Your task to perform on an android device: Go to ESPN.com Image 0: 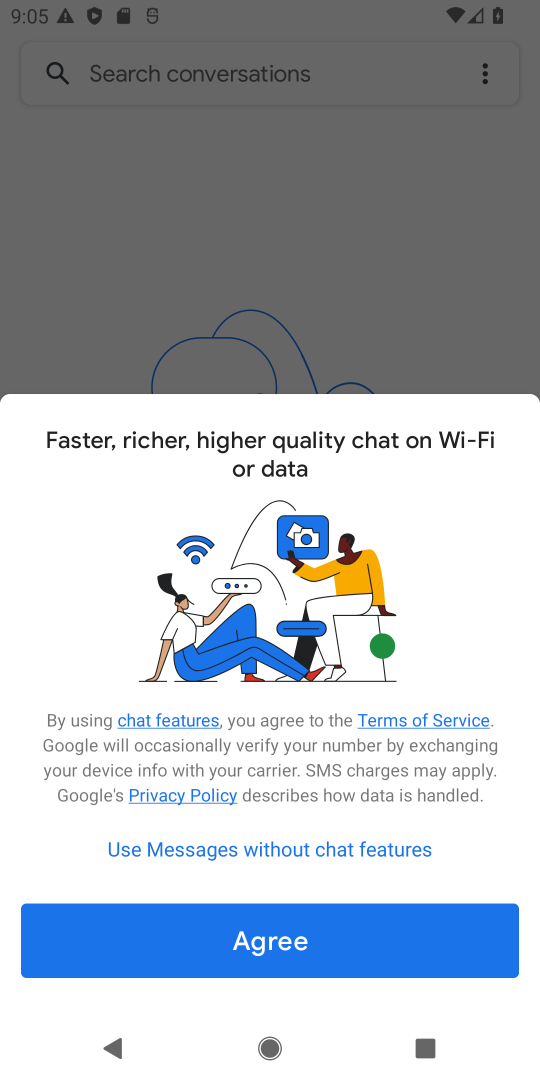
Step 0: press home button
Your task to perform on an android device: Go to ESPN.com Image 1: 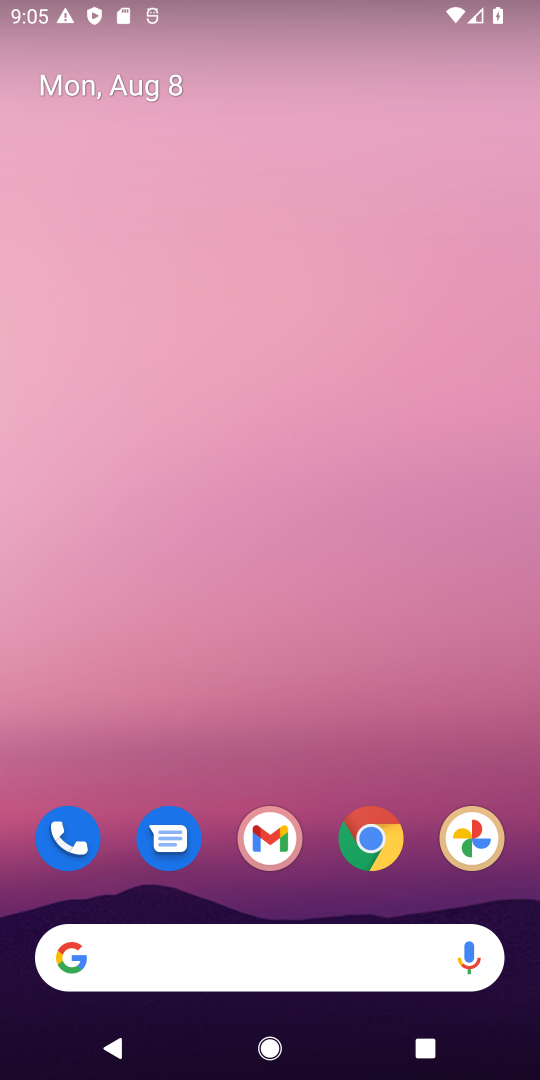
Step 1: press home button
Your task to perform on an android device: Go to ESPN.com Image 2: 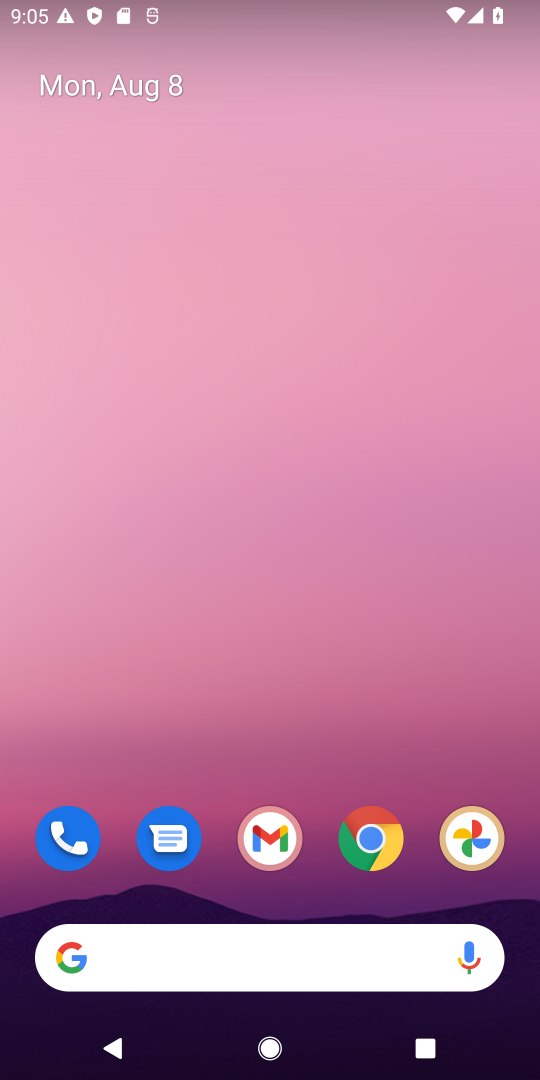
Step 2: click (77, 971)
Your task to perform on an android device: Go to ESPN.com Image 3: 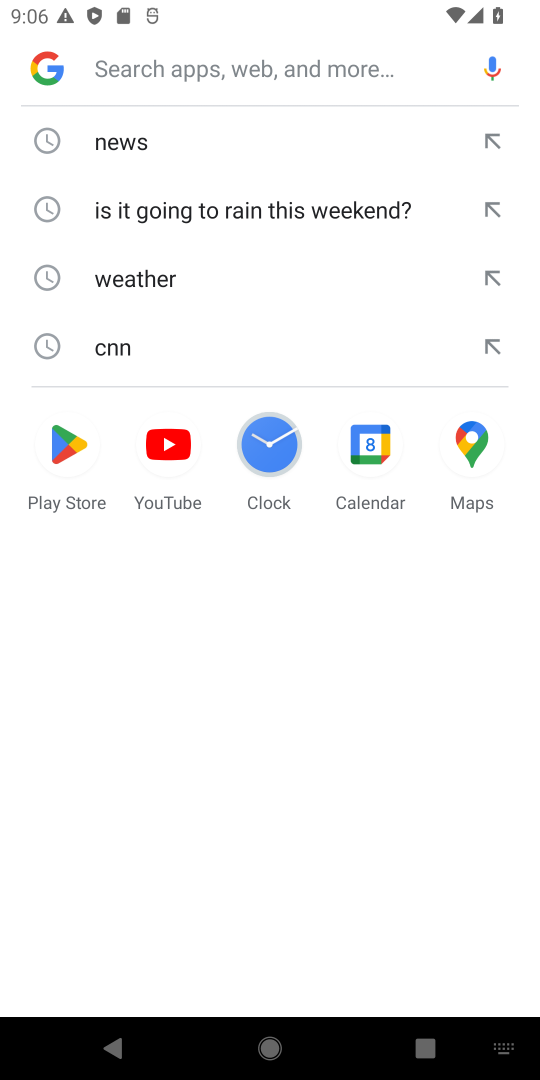
Step 3: type "ESPN.com"
Your task to perform on an android device: Go to ESPN.com Image 4: 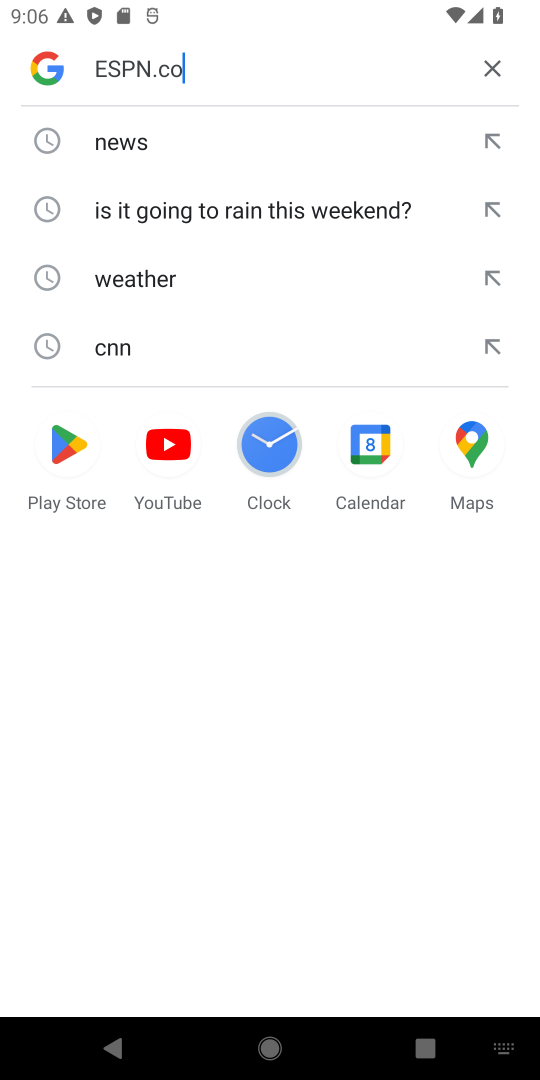
Step 4: press enter
Your task to perform on an android device: Go to ESPN.com Image 5: 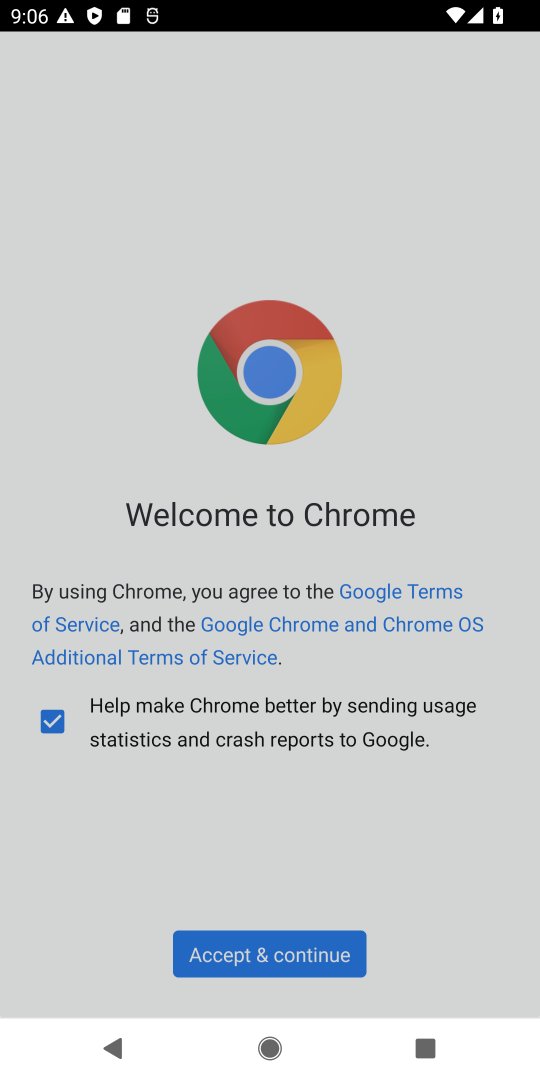
Step 5: click (231, 957)
Your task to perform on an android device: Go to ESPN.com Image 6: 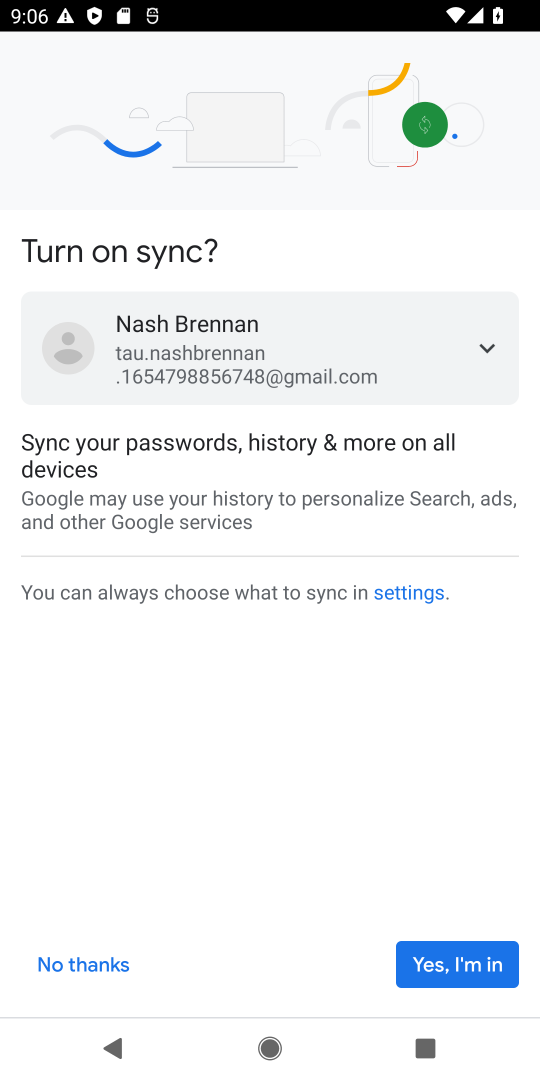
Step 6: click (450, 970)
Your task to perform on an android device: Go to ESPN.com Image 7: 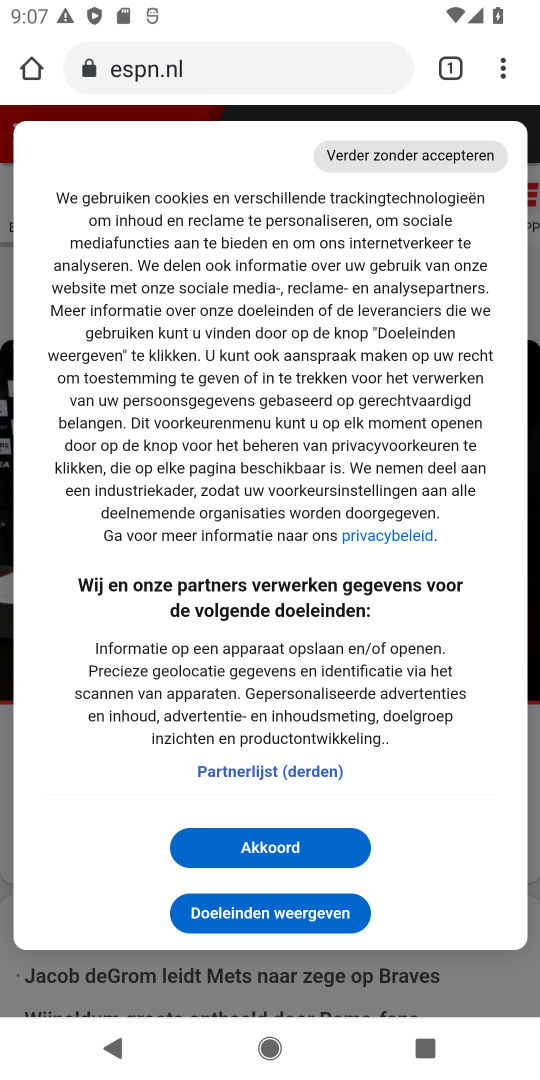
Step 7: task complete